Your task to perform on an android device: Go to settings Image 0: 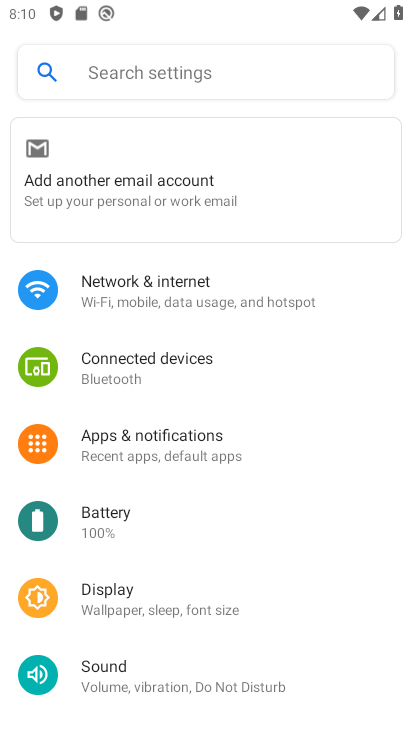
Step 0: press back button
Your task to perform on an android device: Go to settings Image 1: 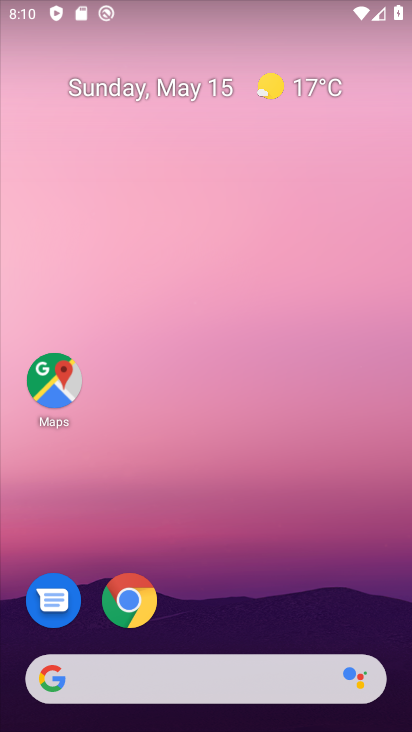
Step 1: drag from (250, 592) to (168, 94)
Your task to perform on an android device: Go to settings Image 2: 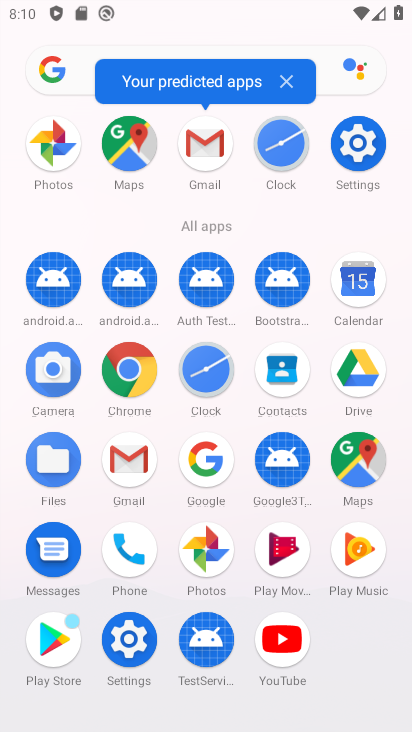
Step 2: click (360, 141)
Your task to perform on an android device: Go to settings Image 3: 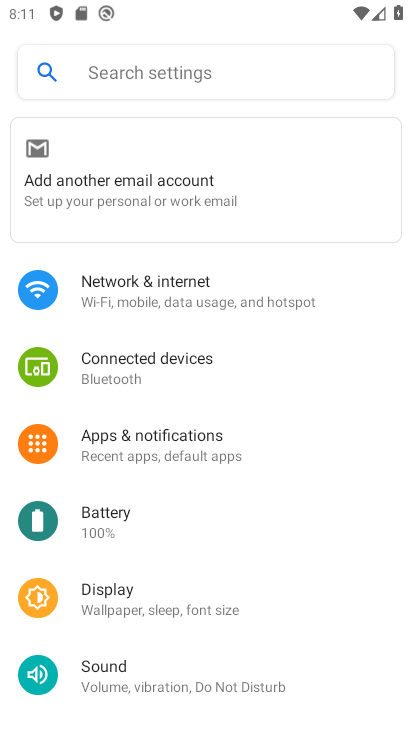
Step 3: task complete